Your task to perform on an android device: check storage Image 0: 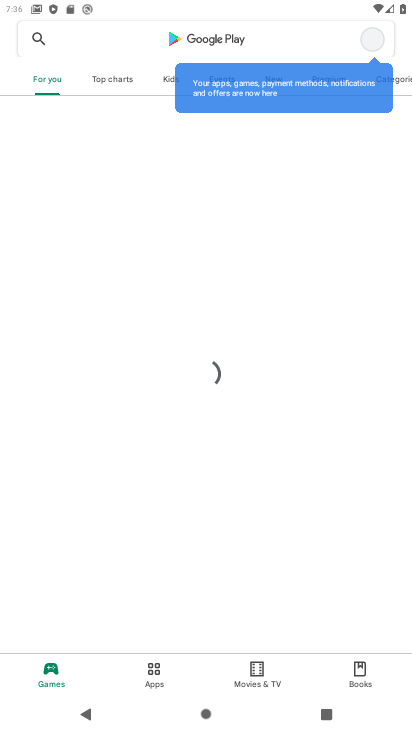
Step 0: press home button
Your task to perform on an android device: check storage Image 1: 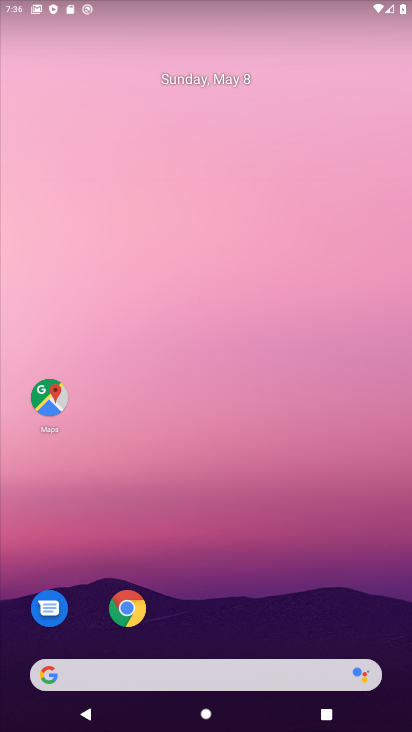
Step 1: drag from (220, 631) to (204, 318)
Your task to perform on an android device: check storage Image 2: 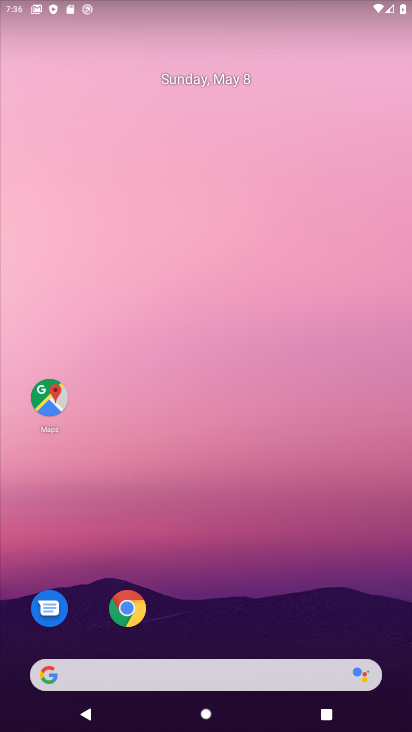
Step 2: click (306, 208)
Your task to perform on an android device: check storage Image 3: 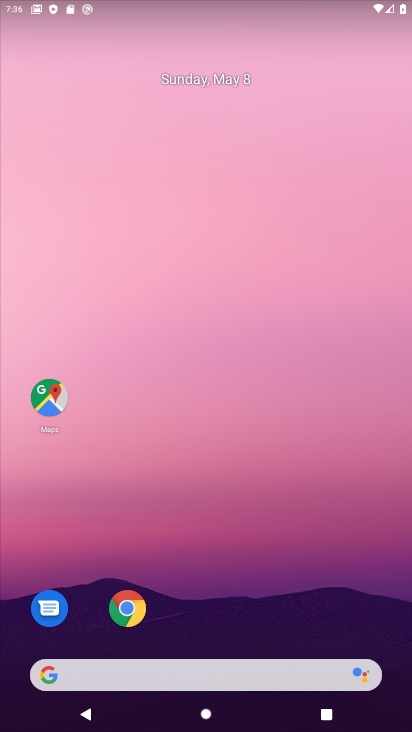
Step 3: drag from (225, 612) to (239, 238)
Your task to perform on an android device: check storage Image 4: 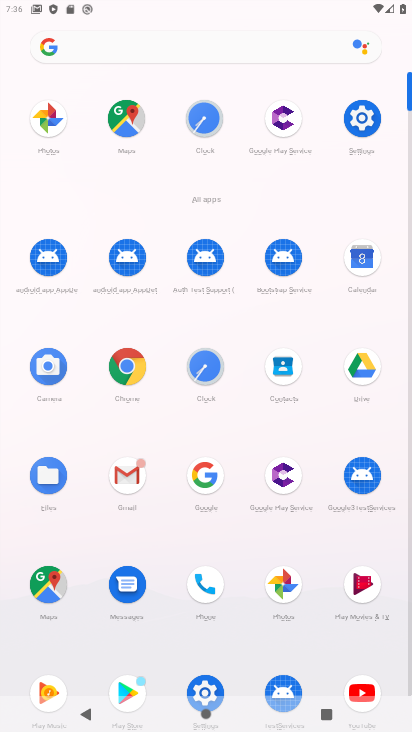
Step 4: click (368, 108)
Your task to perform on an android device: check storage Image 5: 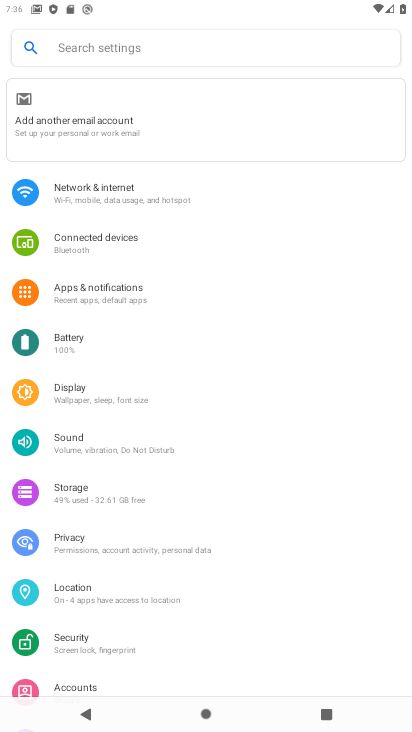
Step 5: click (107, 474)
Your task to perform on an android device: check storage Image 6: 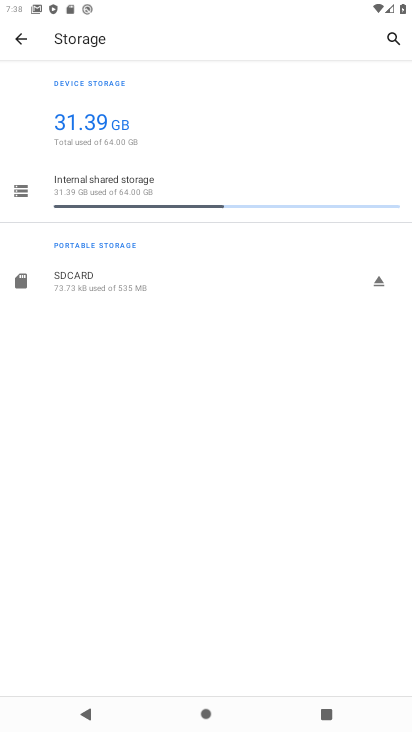
Step 6: task complete